Your task to perform on an android device: Is it going to rain tomorrow? Image 0: 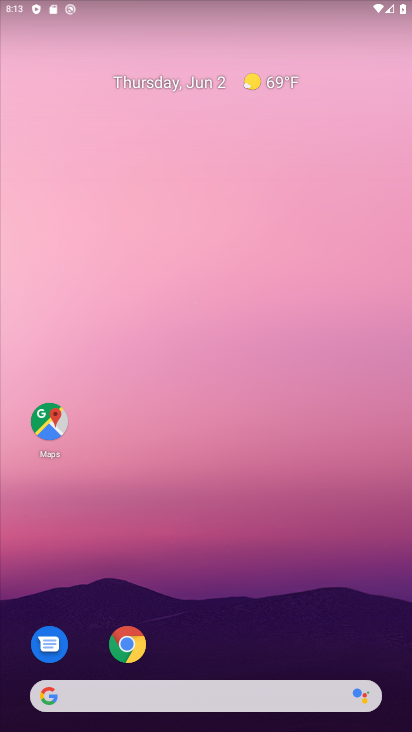
Step 0: drag from (231, 556) to (141, 9)
Your task to perform on an android device: Is it going to rain tomorrow? Image 1: 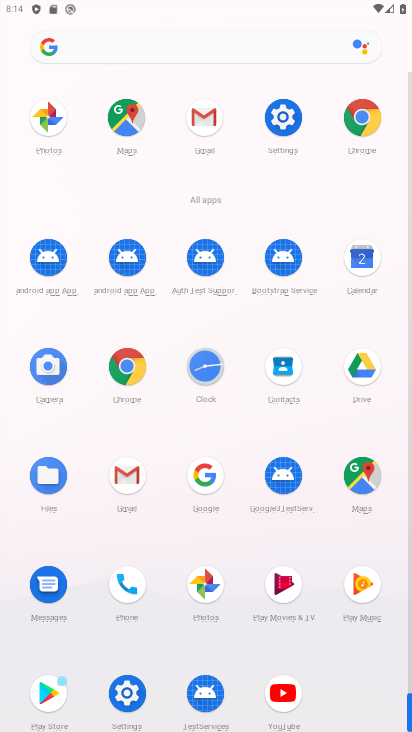
Step 1: click (128, 366)
Your task to perform on an android device: Is it going to rain tomorrow? Image 2: 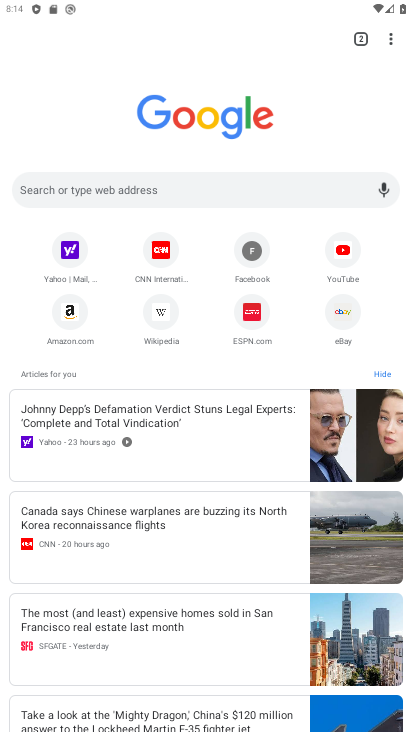
Step 2: click (185, 187)
Your task to perform on an android device: Is it going to rain tomorrow? Image 3: 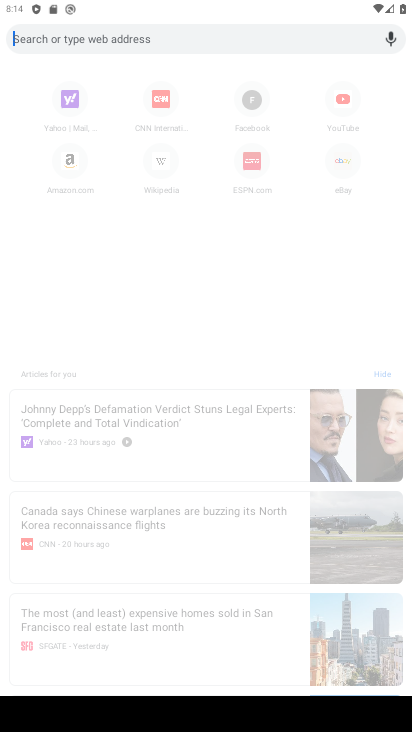
Step 3: type "Is it going to rain tomorrow?"
Your task to perform on an android device: Is it going to rain tomorrow? Image 4: 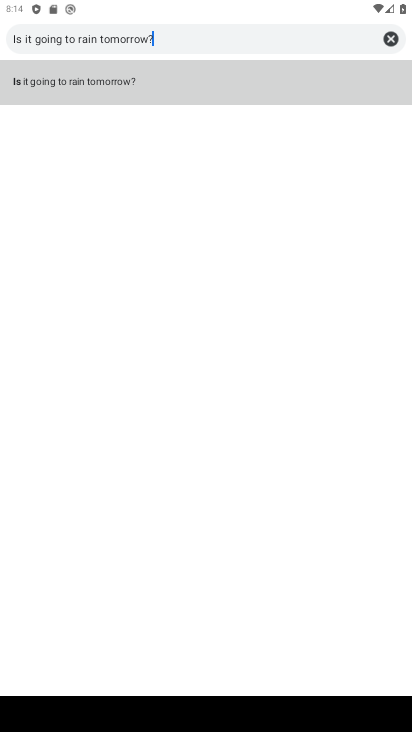
Step 4: type ""
Your task to perform on an android device: Is it going to rain tomorrow? Image 5: 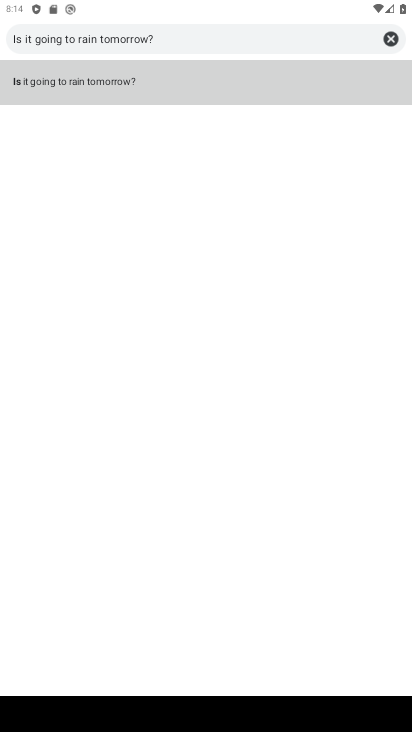
Step 5: click (75, 87)
Your task to perform on an android device: Is it going to rain tomorrow? Image 6: 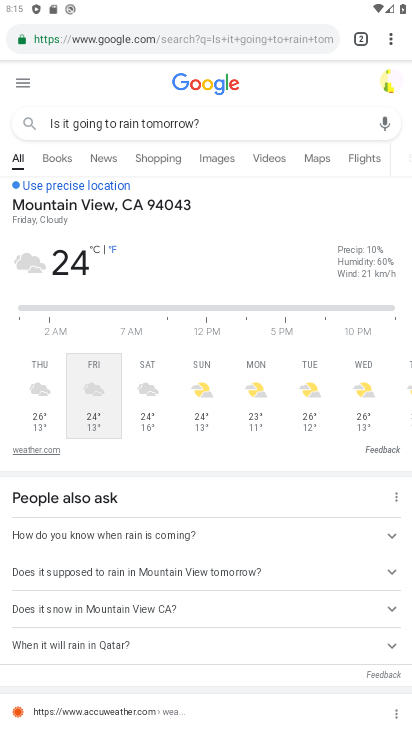
Step 6: task complete